Your task to perform on an android device: Open Chrome and go to settings Image 0: 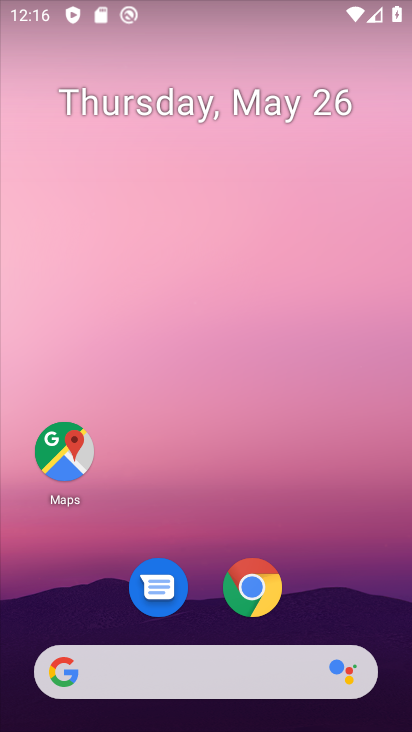
Step 0: drag from (371, 615) to (378, 183)
Your task to perform on an android device: Open Chrome and go to settings Image 1: 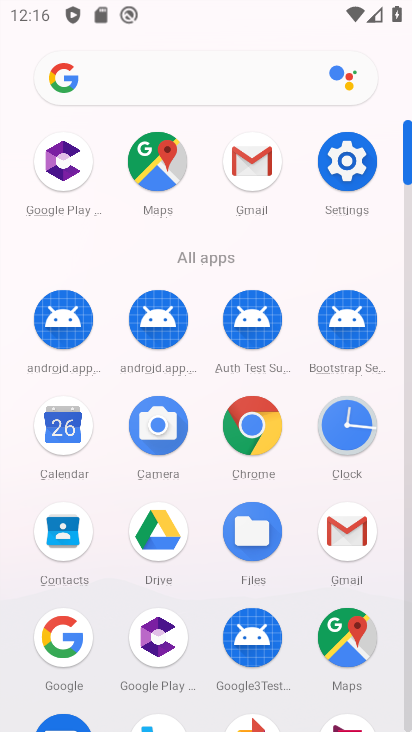
Step 1: click (279, 431)
Your task to perform on an android device: Open Chrome and go to settings Image 2: 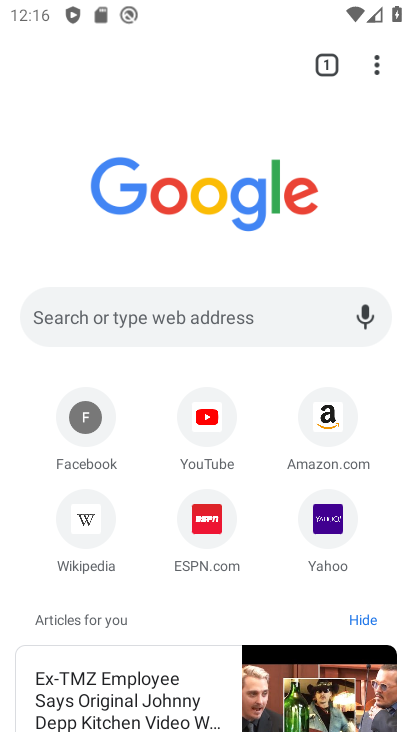
Step 2: click (377, 67)
Your task to perform on an android device: Open Chrome and go to settings Image 3: 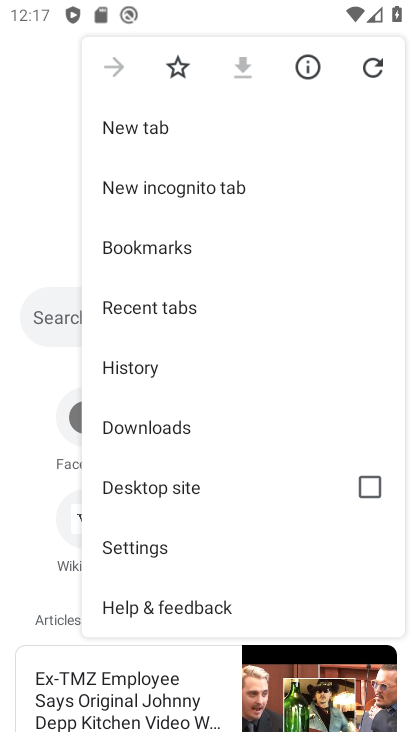
Step 3: click (197, 549)
Your task to perform on an android device: Open Chrome and go to settings Image 4: 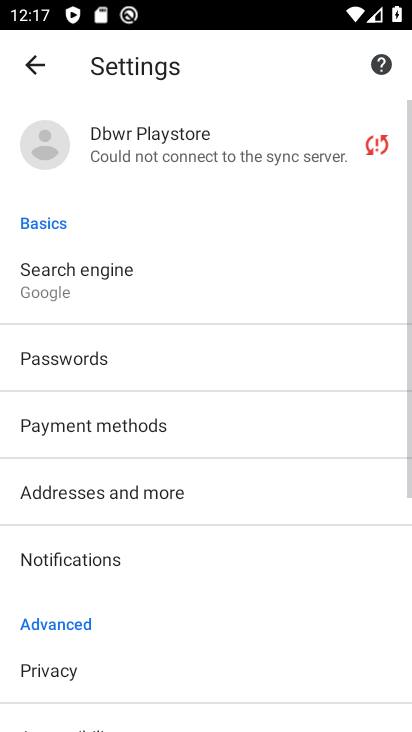
Step 4: task complete